Your task to perform on an android device: Open Android settings Image 0: 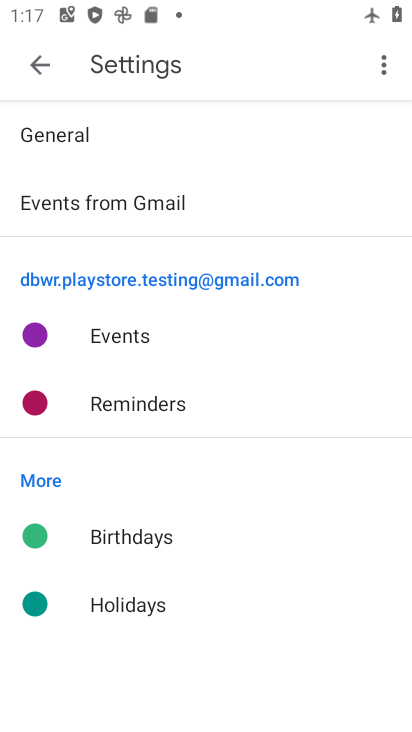
Step 0: press home button
Your task to perform on an android device: Open Android settings Image 1: 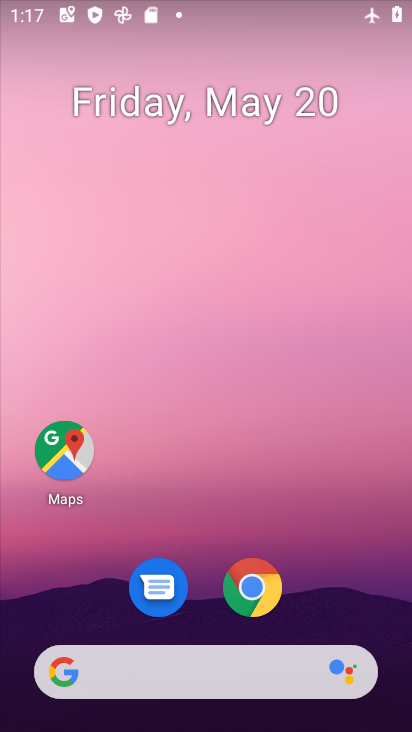
Step 1: drag from (300, 511) to (297, 4)
Your task to perform on an android device: Open Android settings Image 2: 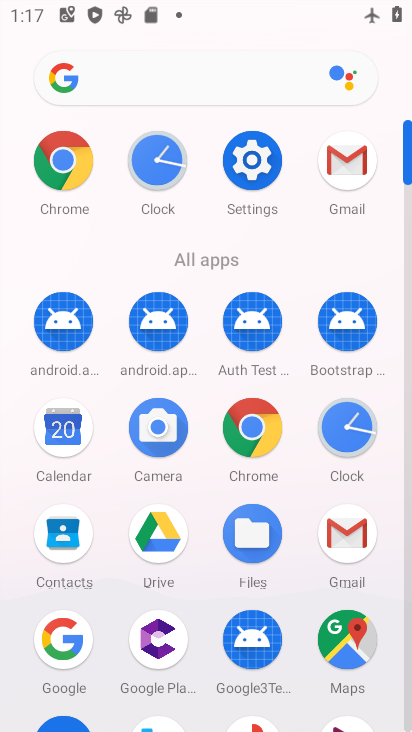
Step 2: click (254, 154)
Your task to perform on an android device: Open Android settings Image 3: 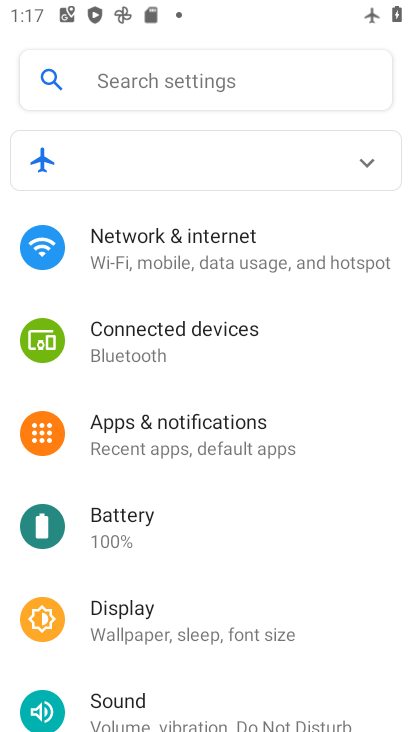
Step 3: task complete